Your task to perform on an android device: check google app version Image 0: 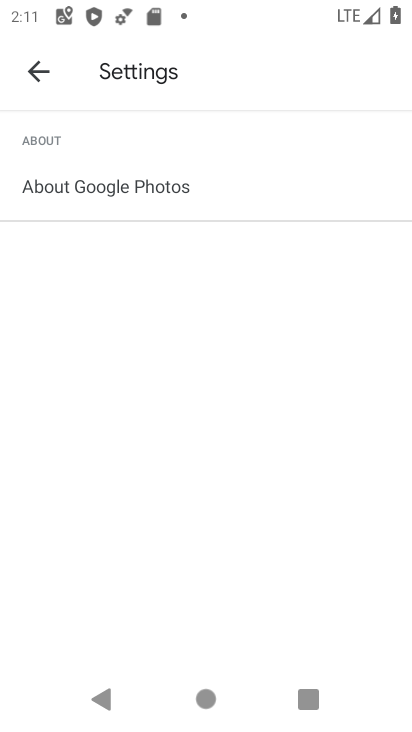
Step 0: drag from (338, 596) to (123, 92)
Your task to perform on an android device: check google app version Image 1: 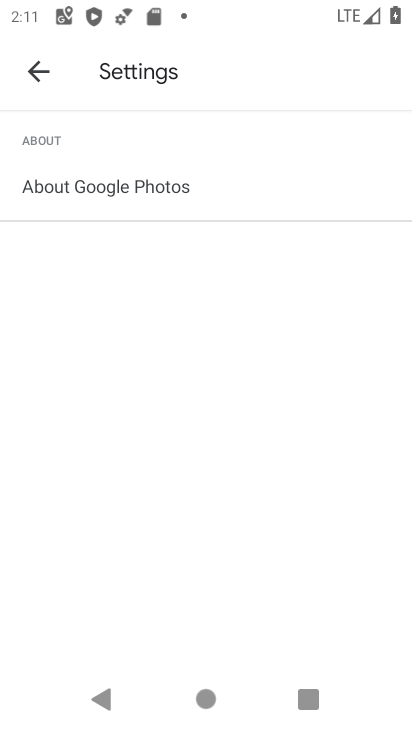
Step 1: click (29, 76)
Your task to perform on an android device: check google app version Image 2: 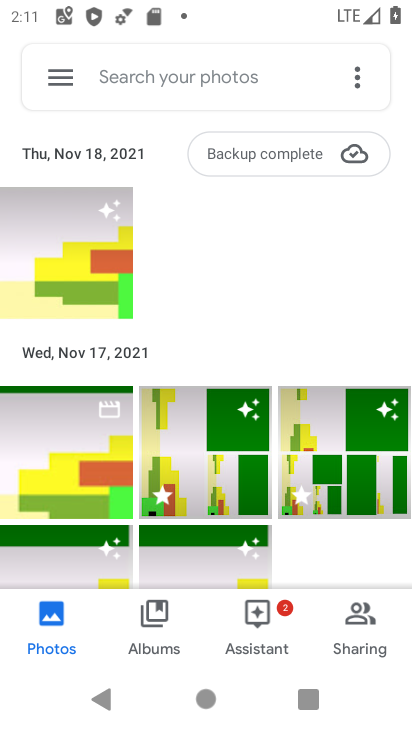
Step 2: press back button
Your task to perform on an android device: check google app version Image 3: 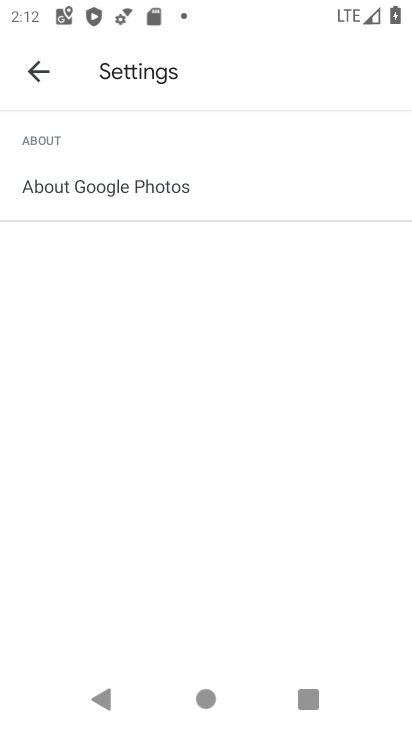
Step 3: click (39, 70)
Your task to perform on an android device: check google app version Image 4: 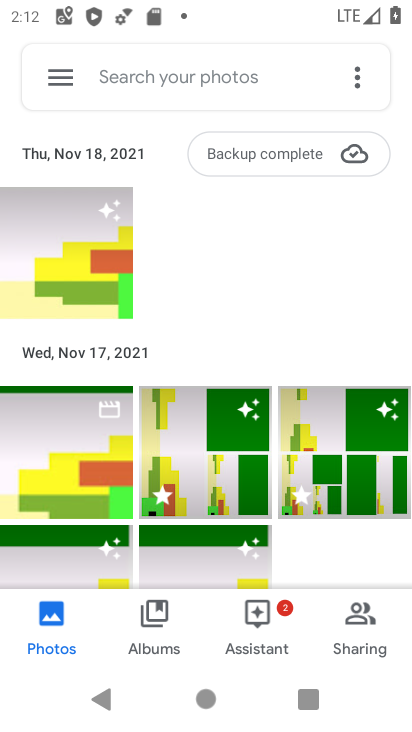
Step 4: press back button
Your task to perform on an android device: check google app version Image 5: 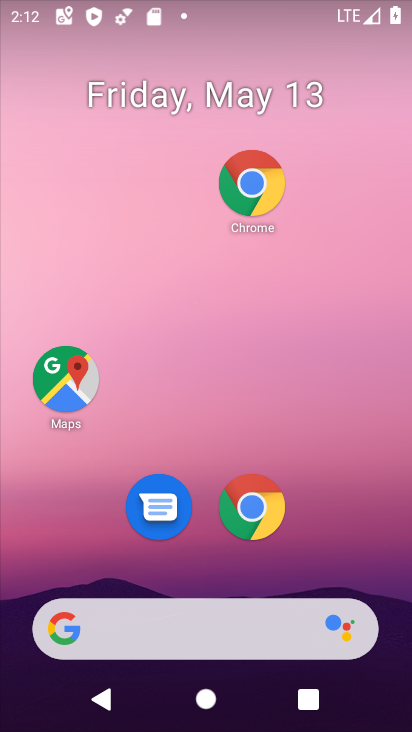
Step 5: drag from (345, 571) to (163, 62)
Your task to perform on an android device: check google app version Image 6: 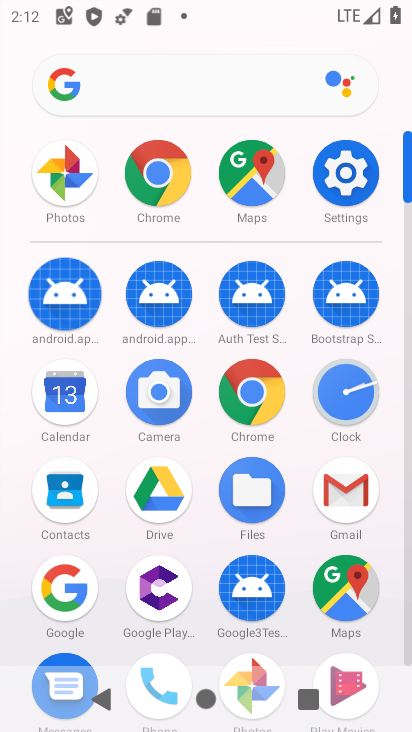
Step 6: click (66, 582)
Your task to perform on an android device: check google app version Image 7: 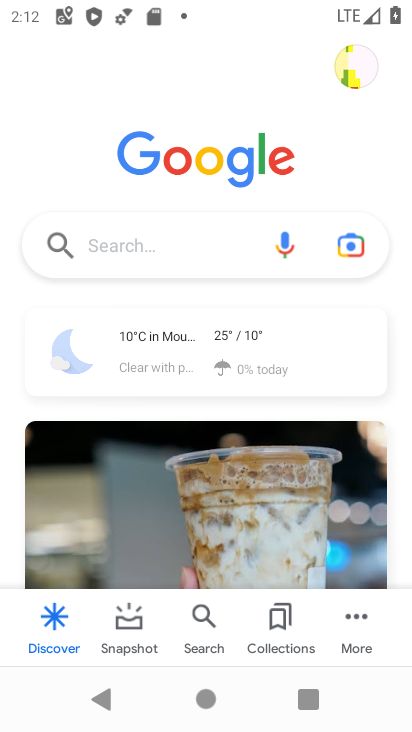
Step 7: click (352, 621)
Your task to perform on an android device: check google app version Image 8: 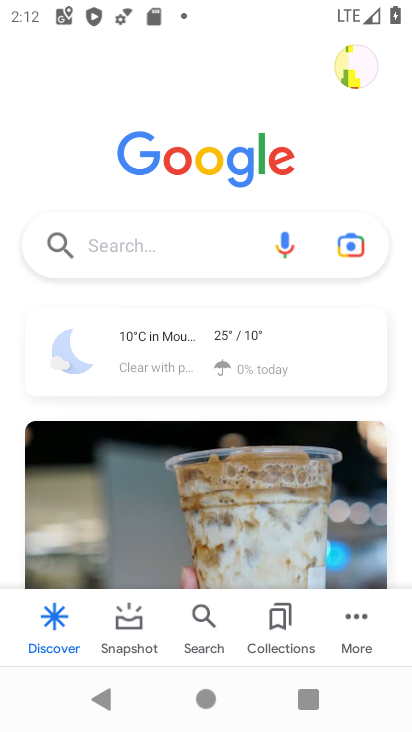
Step 8: click (352, 621)
Your task to perform on an android device: check google app version Image 9: 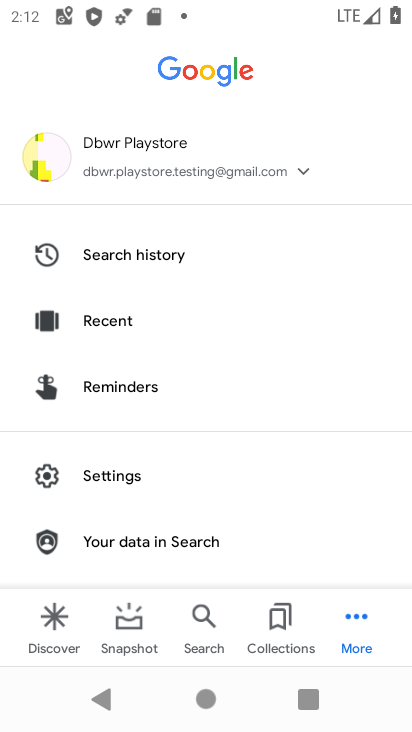
Step 9: click (114, 467)
Your task to perform on an android device: check google app version Image 10: 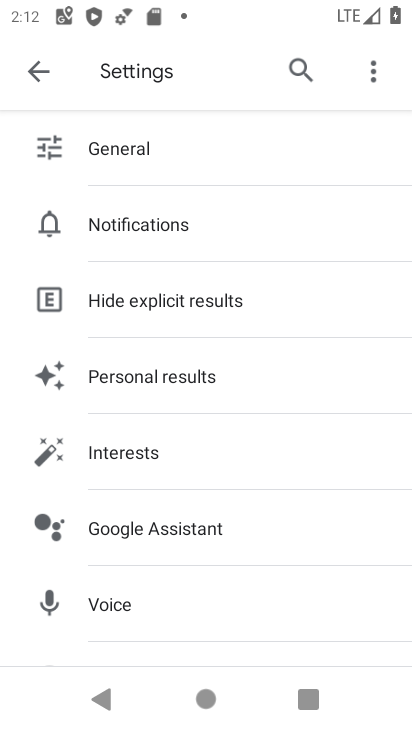
Step 10: drag from (160, 414) to (109, 36)
Your task to perform on an android device: check google app version Image 11: 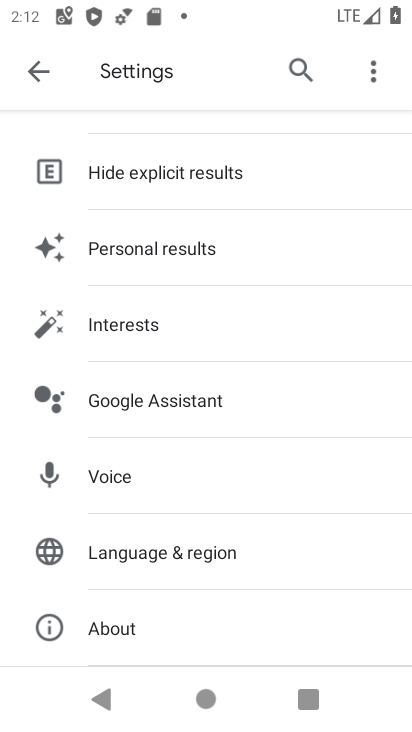
Step 11: click (114, 627)
Your task to perform on an android device: check google app version Image 12: 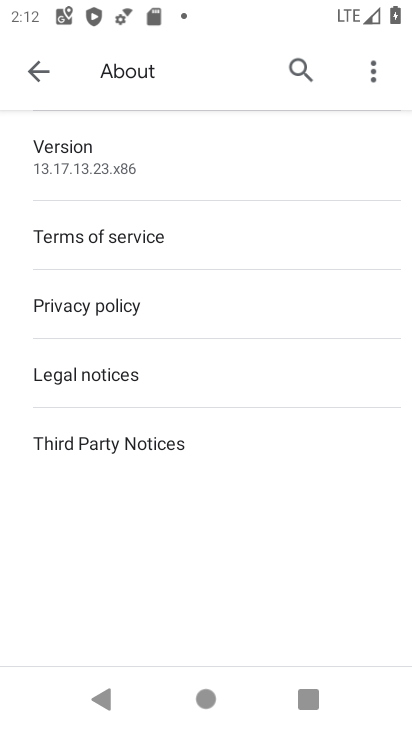
Step 12: task complete